Your task to perform on an android device: Is it going to rain today? Image 0: 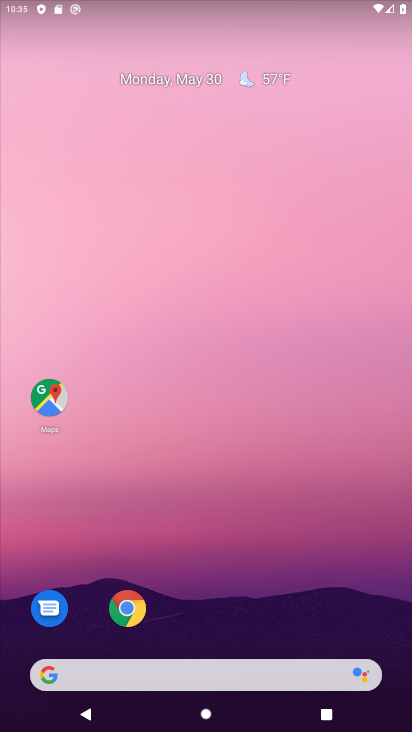
Step 0: drag from (351, 585) to (279, 60)
Your task to perform on an android device: Is it going to rain today? Image 1: 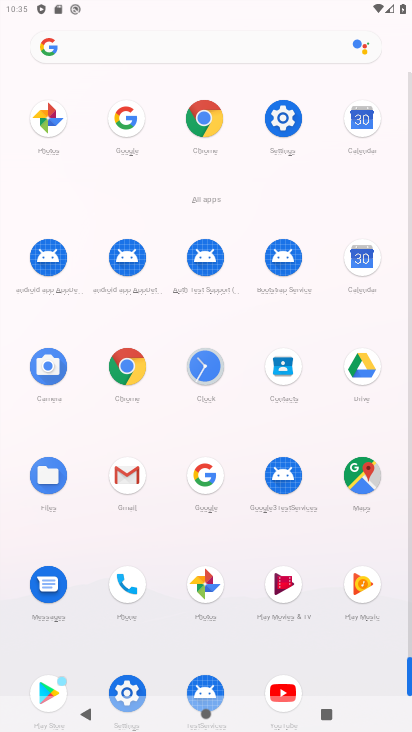
Step 1: drag from (6, 541) to (4, 210)
Your task to perform on an android device: Is it going to rain today? Image 2: 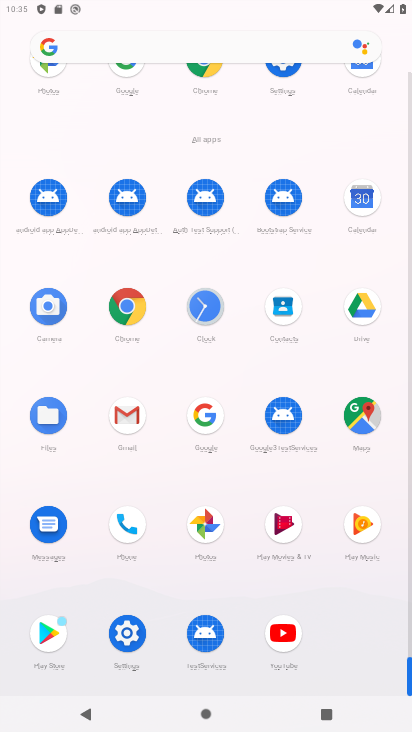
Step 2: click (129, 283)
Your task to perform on an android device: Is it going to rain today? Image 3: 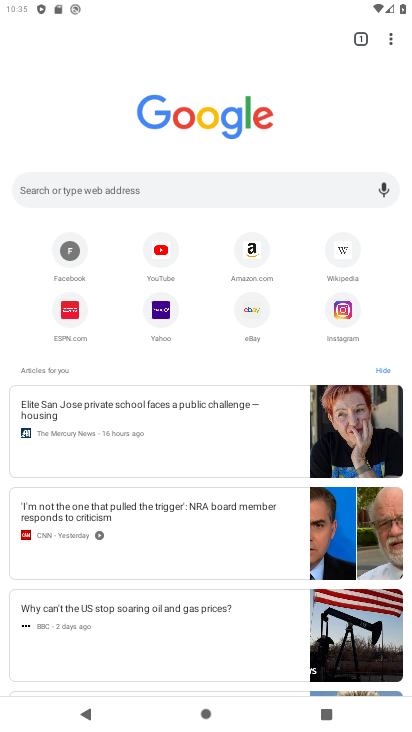
Step 3: click (187, 184)
Your task to perform on an android device: Is it going to rain today? Image 4: 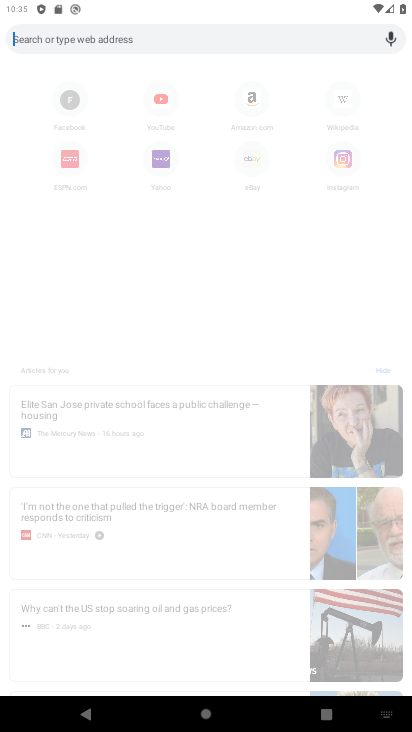
Step 4: type "Is it going to rain today?"
Your task to perform on an android device: Is it going to rain today? Image 5: 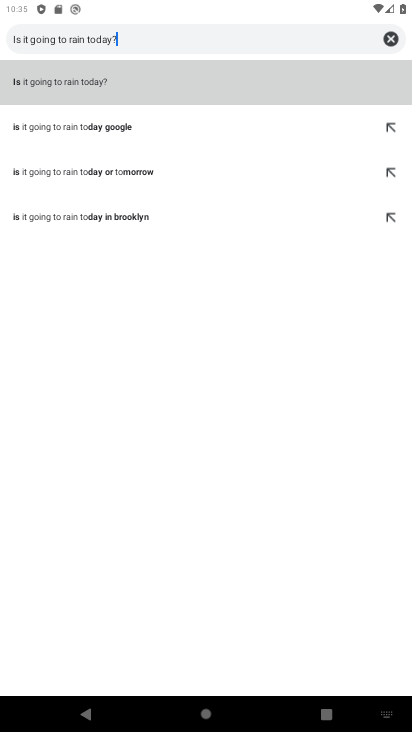
Step 5: click (139, 81)
Your task to perform on an android device: Is it going to rain today? Image 6: 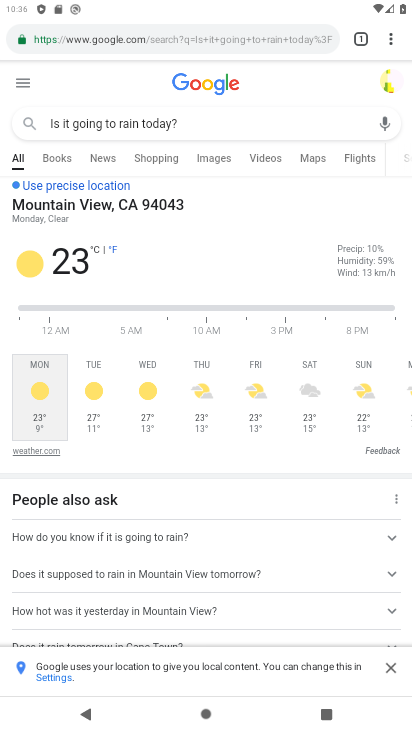
Step 6: task complete